Your task to perform on an android device: delete browsing data in the chrome app Image 0: 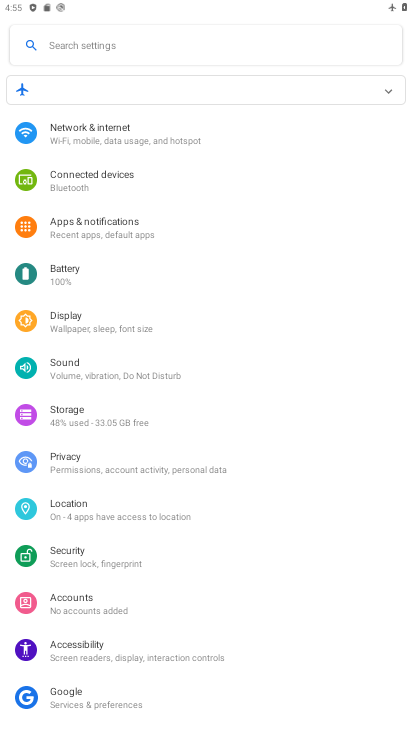
Step 0: press home button
Your task to perform on an android device: delete browsing data in the chrome app Image 1: 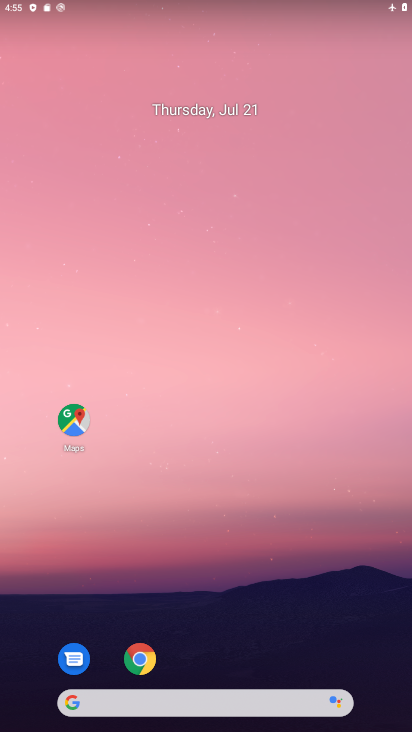
Step 1: click (139, 661)
Your task to perform on an android device: delete browsing data in the chrome app Image 2: 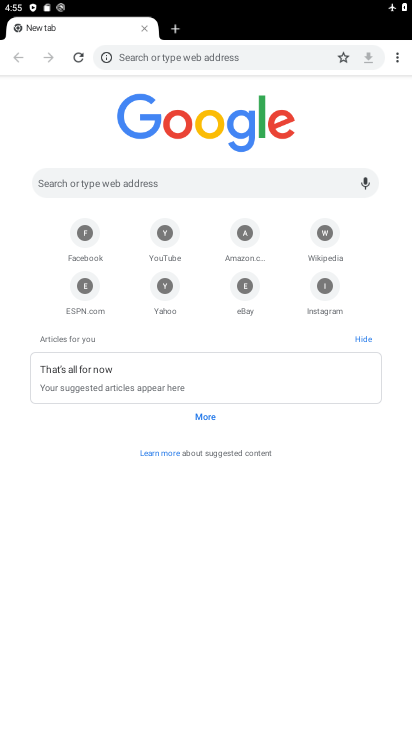
Step 2: click (398, 63)
Your task to perform on an android device: delete browsing data in the chrome app Image 3: 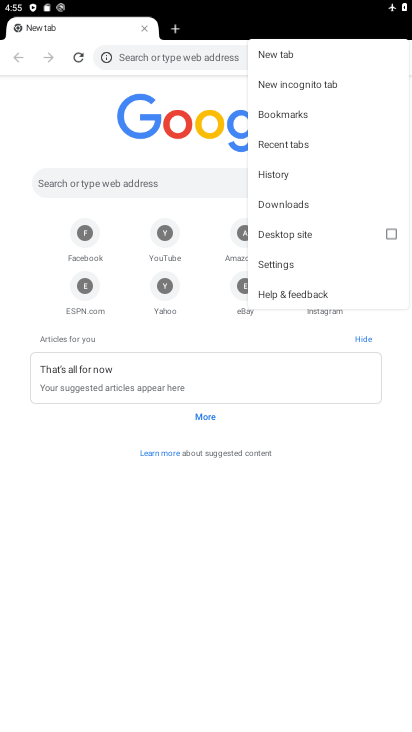
Step 3: click (272, 169)
Your task to perform on an android device: delete browsing data in the chrome app Image 4: 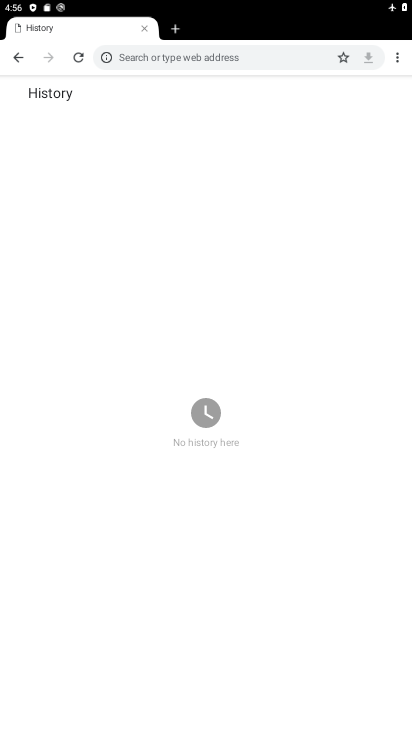
Step 4: task complete